Your task to perform on an android device: change the clock display to analog Image 0: 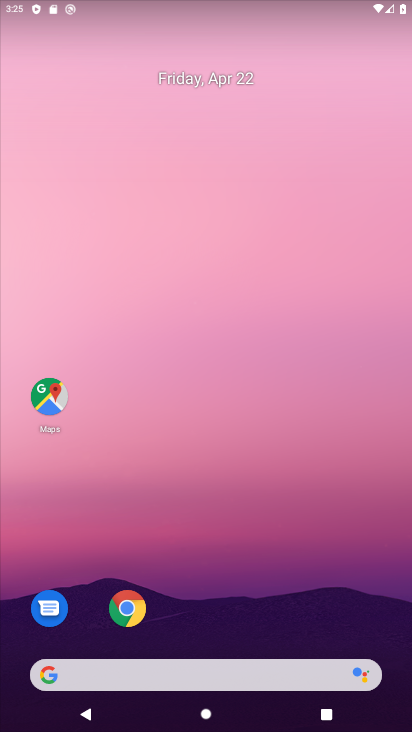
Step 0: drag from (229, 626) to (274, 229)
Your task to perform on an android device: change the clock display to analog Image 1: 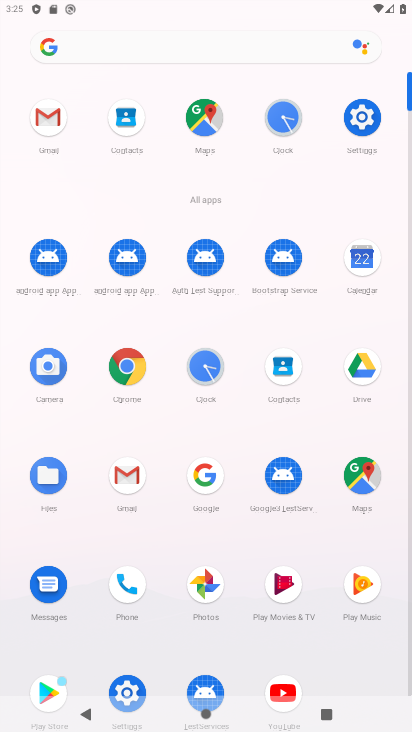
Step 1: click (290, 116)
Your task to perform on an android device: change the clock display to analog Image 2: 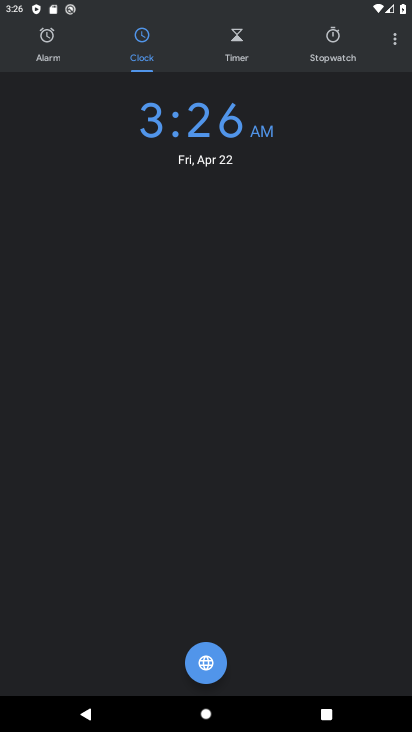
Step 2: click (399, 48)
Your task to perform on an android device: change the clock display to analog Image 3: 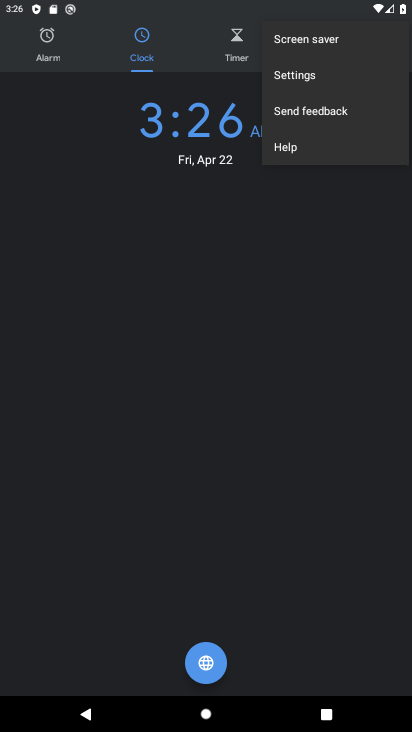
Step 3: click (344, 82)
Your task to perform on an android device: change the clock display to analog Image 4: 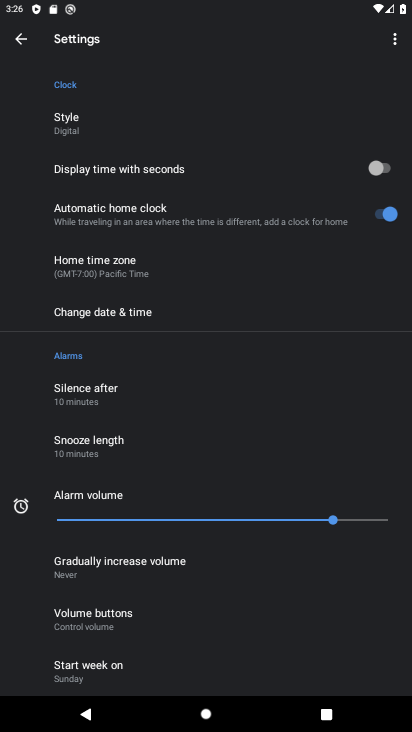
Step 4: click (260, 132)
Your task to perform on an android device: change the clock display to analog Image 5: 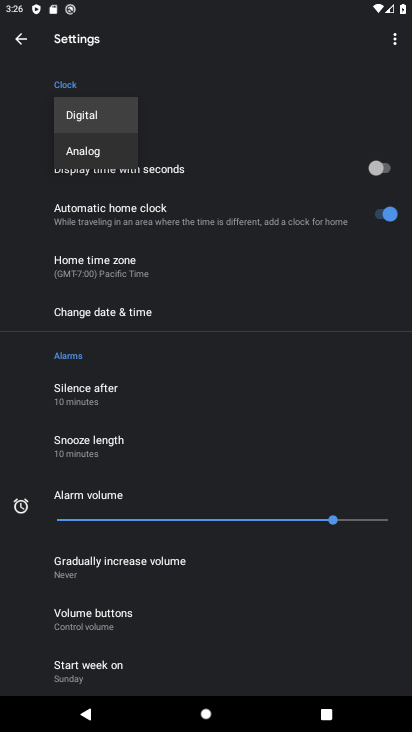
Step 5: click (122, 153)
Your task to perform on an android device: change the clock display to analog Image 6: 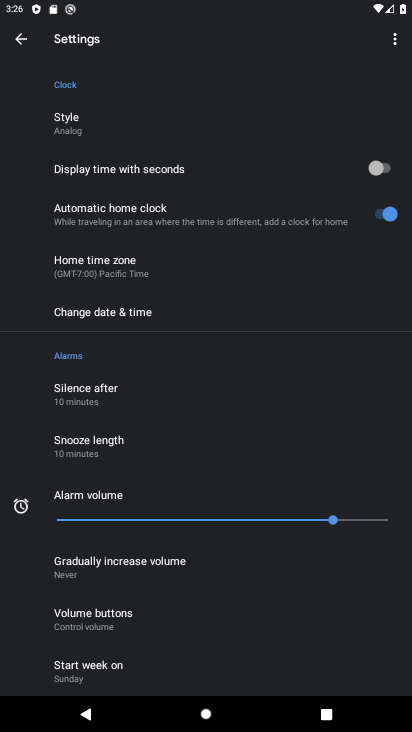
Step 6: task complete